Your task to perform on an android device: toggle sleep mode Image 0: 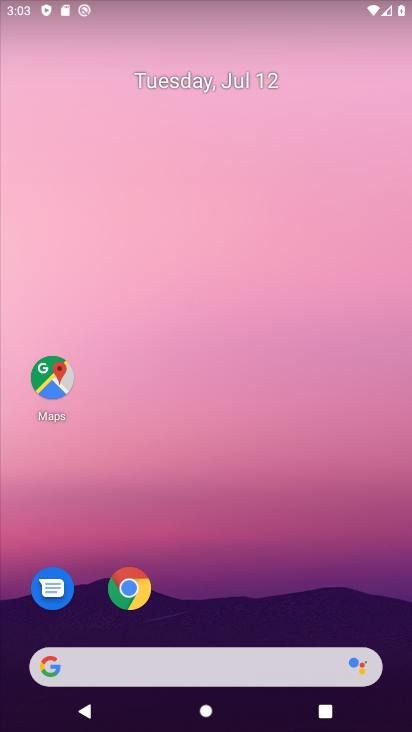
Step 0: drag from (221, 606) to (148, 62)
Your task to perform on an android device: toggle sleep mode Image 1: 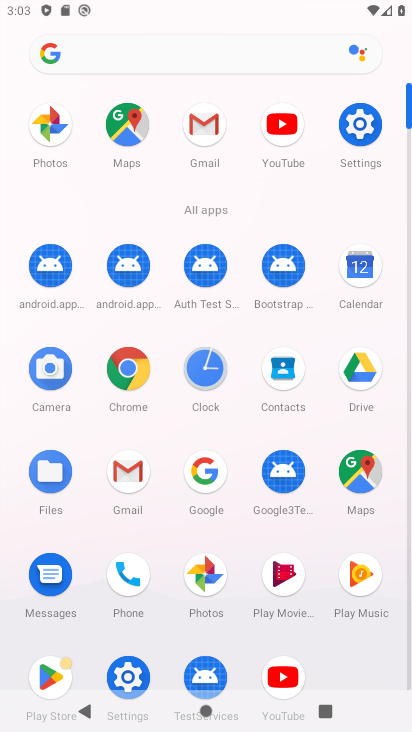
Step 1: click (366, 118)
Your task to perform on an android device: toggle sleep mode Image 2: 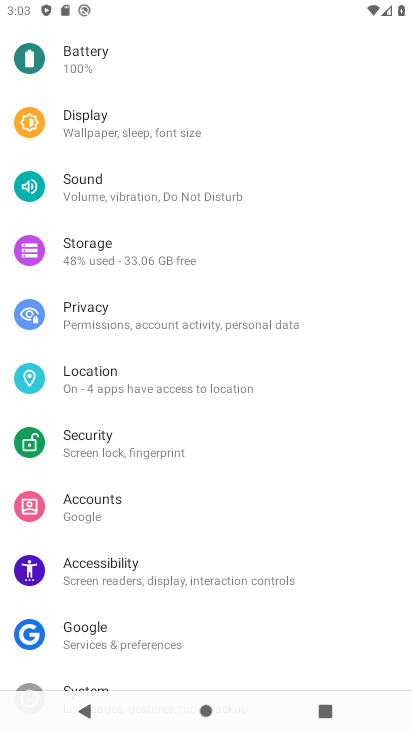
Step 2: click (257, 124)
Your task to perform on an android device: toggle sleep mode Image 3: 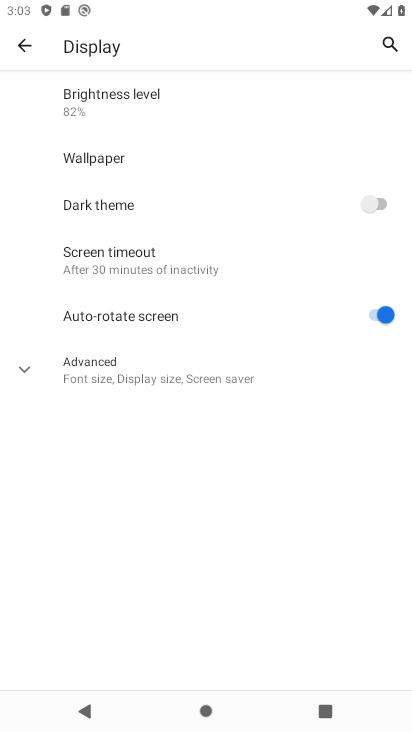
Step 3: click (304, 375)
Your task to perform on an android device: toggle sleep mode Image 4: 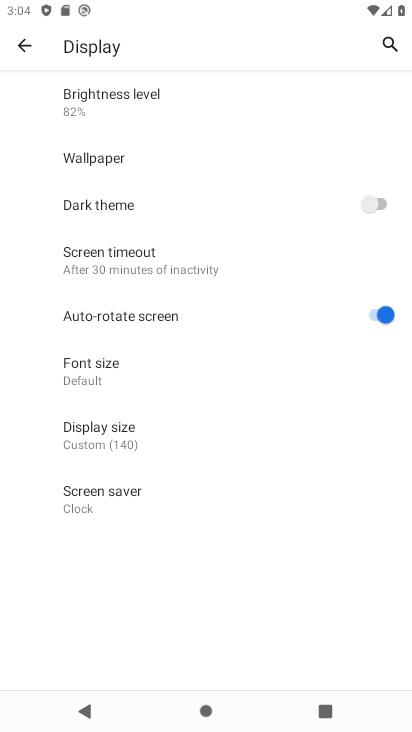
Step 4: task complete